Your task to perform on an android device: Turn off the flashlight Image 0: 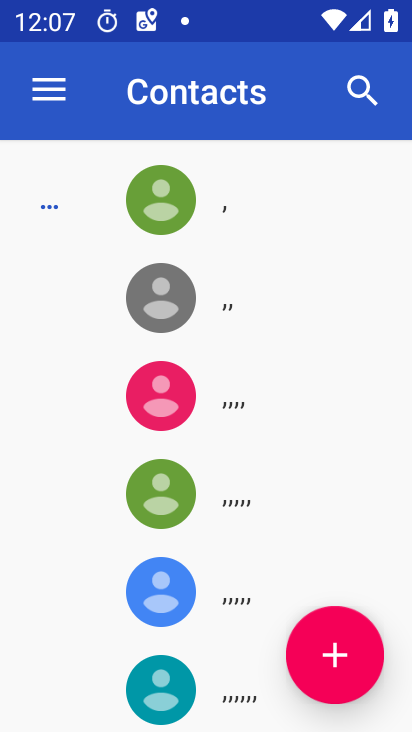
Step 0: press home button
Your task to perform on an android device: Turn off the flashlight Image 1: 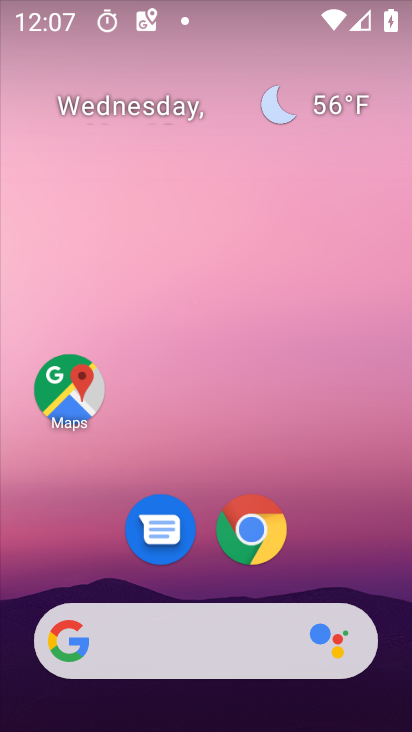
Step 1: drag from (225, 580) to (307, 2)
Your task to perform on an android device: Turn off the flashlight Image 2: 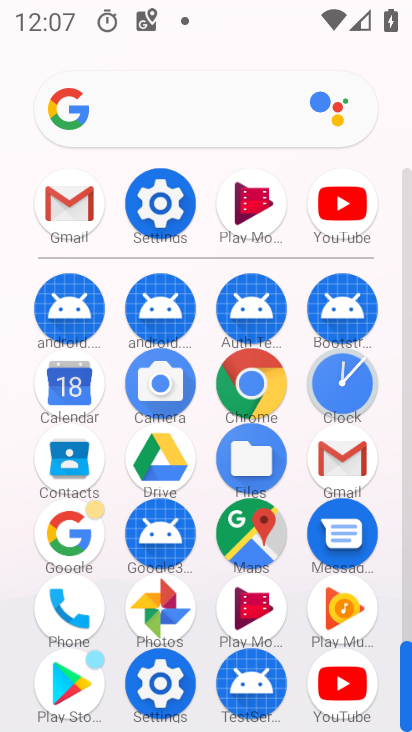
Step 2: click (160, 206)
Your task to perform on an android device: Turn off the flashlight Image 3: 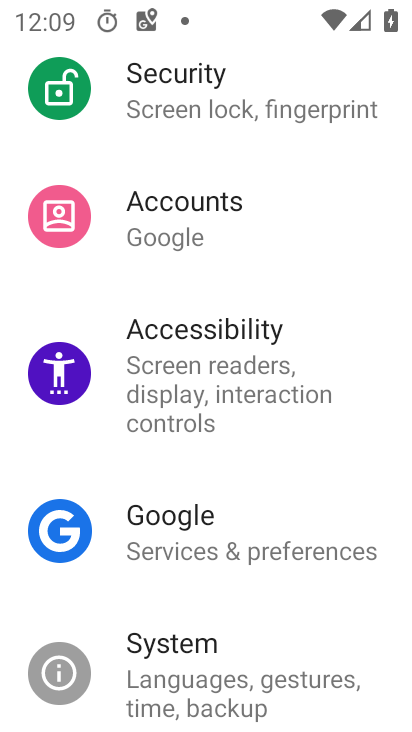
Step 3: task complete